Your task to perform on an android device: Open internet settings Image 0: 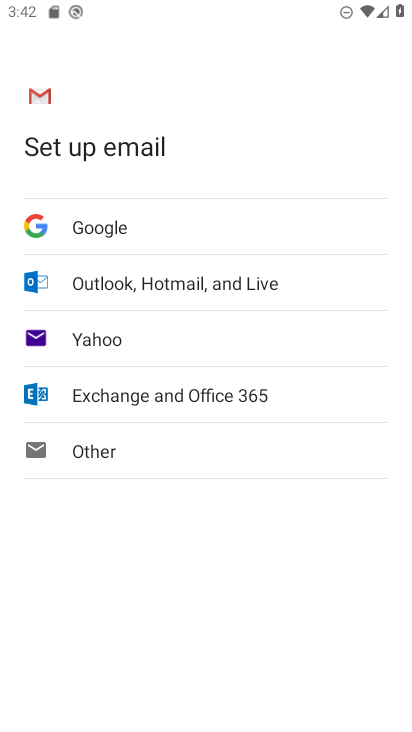
Step 0: press home button
Your task to perform on an android device: Open internet settings Image 1: 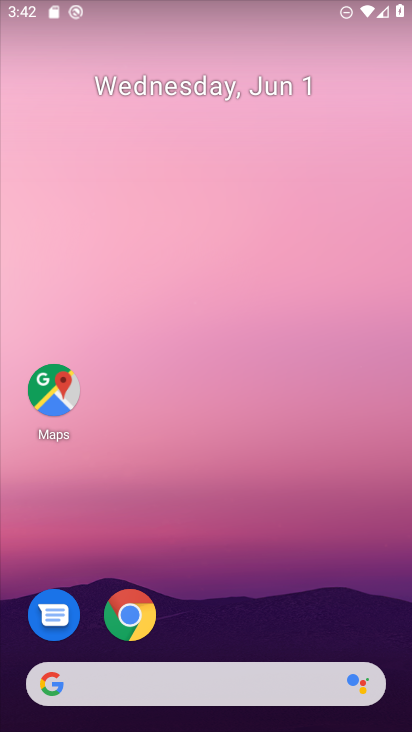
Step 1: drag from (216, 645) to (242, 7)
Your task to perform on an android device: Open internet settings Image 2: 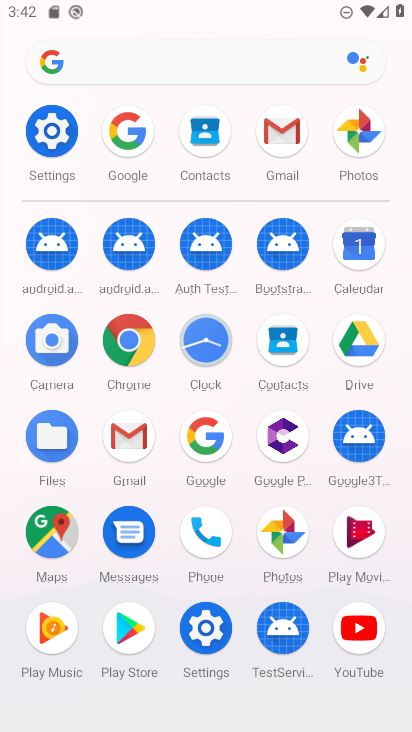
Step 2: click (50, 126)
Your task to perform on an android device: Open internet settings Image 3: 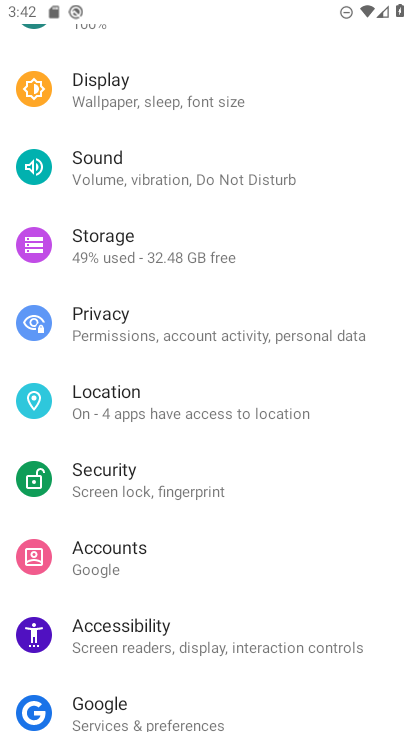
Step 3: drag from (174, 63) to (168, 622)
Your task to perform on an android device: Open internet settings Image 4: 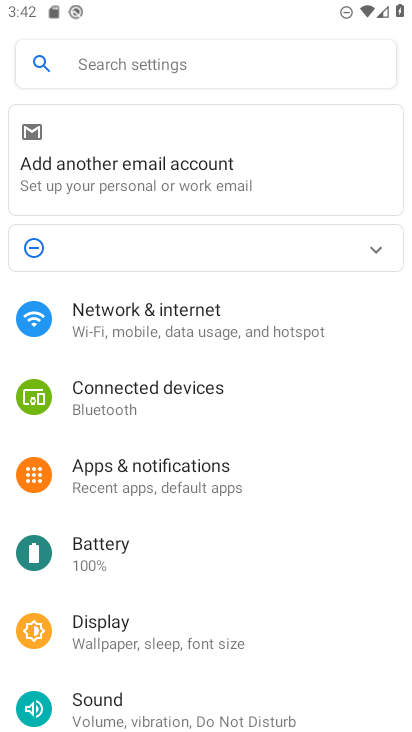
Step 4: click (232, 310)
Your task to perform on an android device: Open internet settings Image 5: 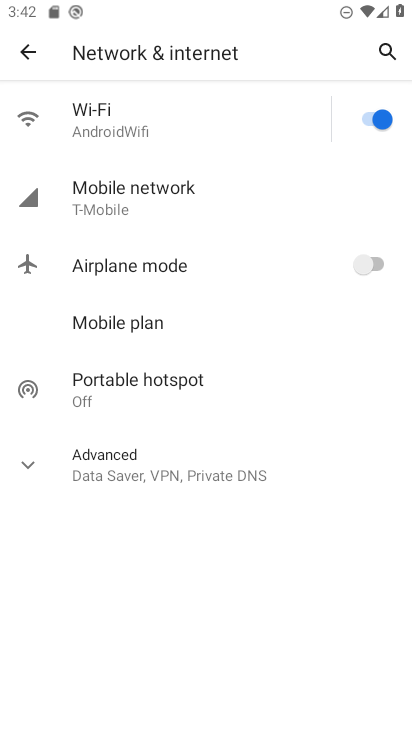
Step 5: click (28, 463)
Your task to perform on an android device: Open internet settings Image 6: 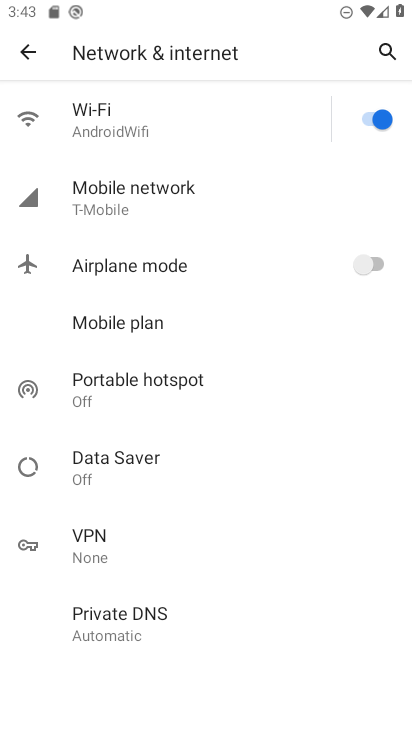
Step 6: task complete